Your task to perform on an android device: make emails show in primary in the gmail app Image 0: 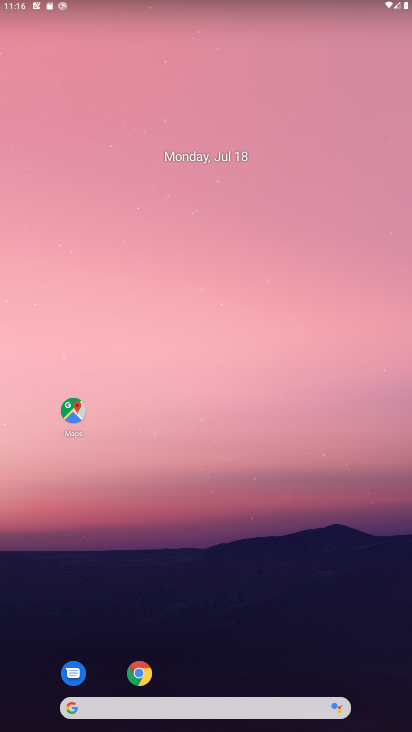
Step 0: drag from (194, 645) to (228, 236)
Your task to perform on an android device: make emails show in primary in the gmail app Image 1: 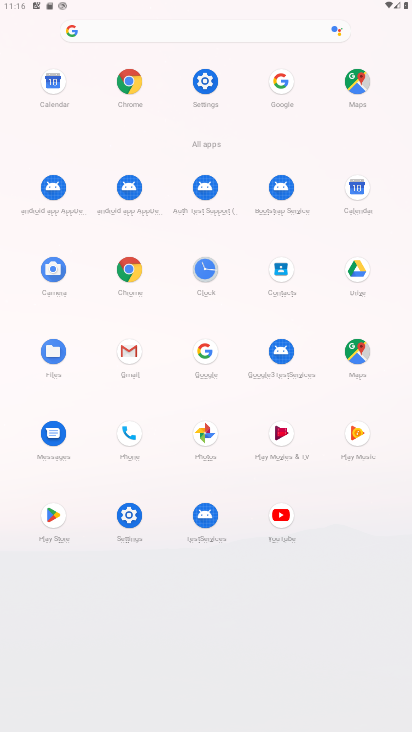
Step 1: click (145, 359)
Your task to perform on an android device: make emails show in primary in the gmail app Image 2: 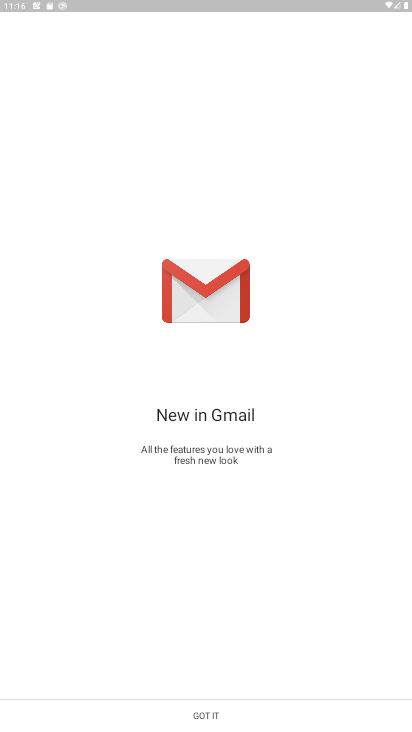
Step 2: click (245, 711)
Your task to perform on an android device: make emails show in primary in the gmail app Image 3: 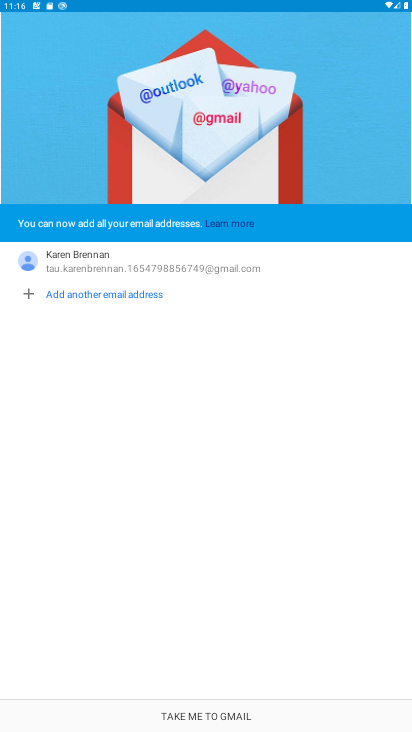
Step 3: click (202, 719)
Your task to perform on an android device: make emails show in primary in the gmail app Image 4: 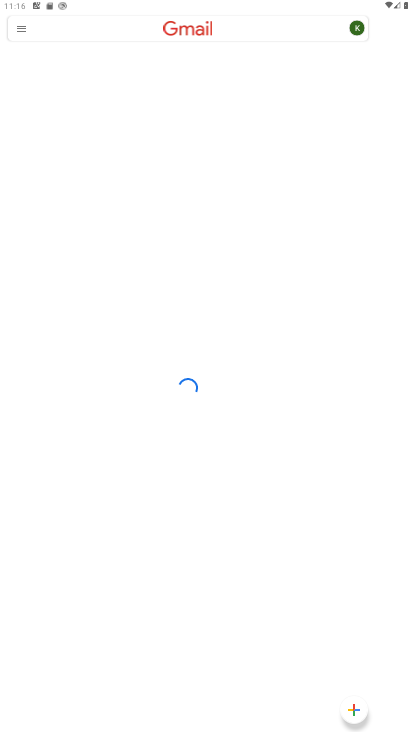
Step 4: click (57, 27)
Your task to perform on an android device: make emails show in primary in the gmail app Image 5: 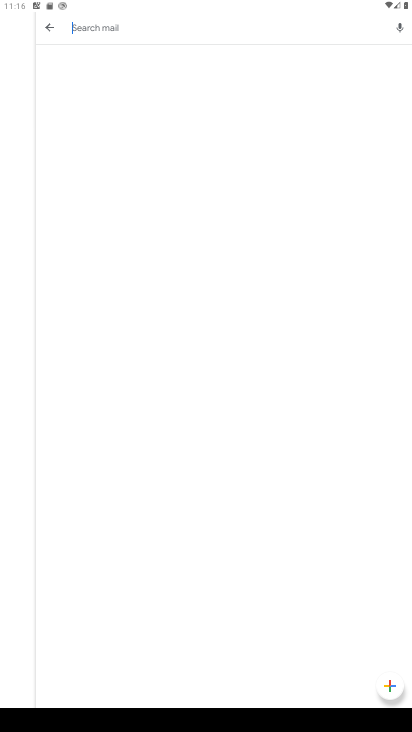
Step 5: click (49, 27)
Your task to perform on an android device: make emails show in primary in the gmail app Image 6: 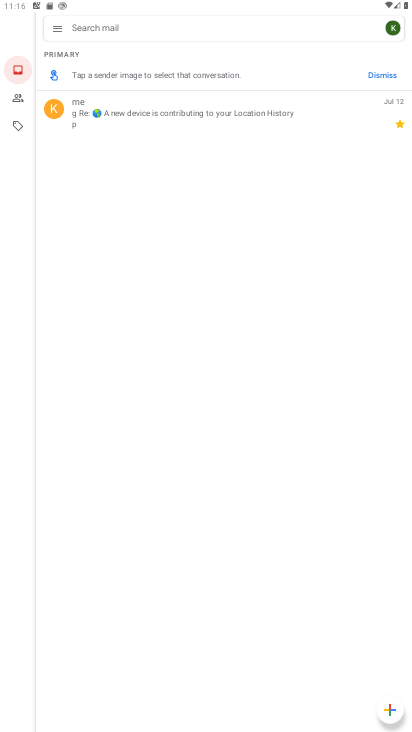
Step 6: click (59, 34)
Your task to perform on an android device: make emails show in primary in the gmail app Image 7: 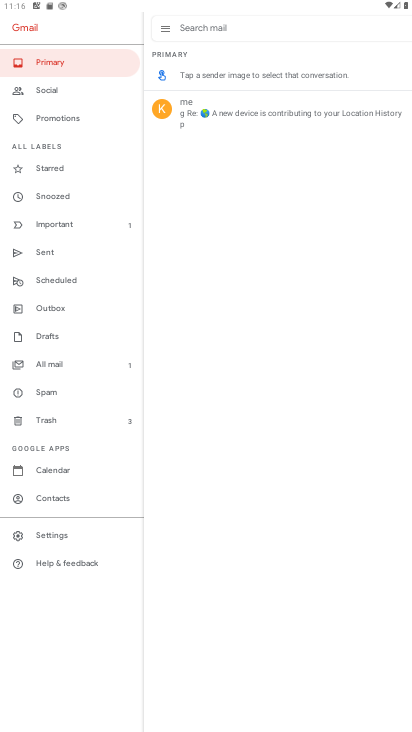
Step 7: click (67, 531)
Your task to perform on an android device: make emails show in primary in the gmail app Image 8: 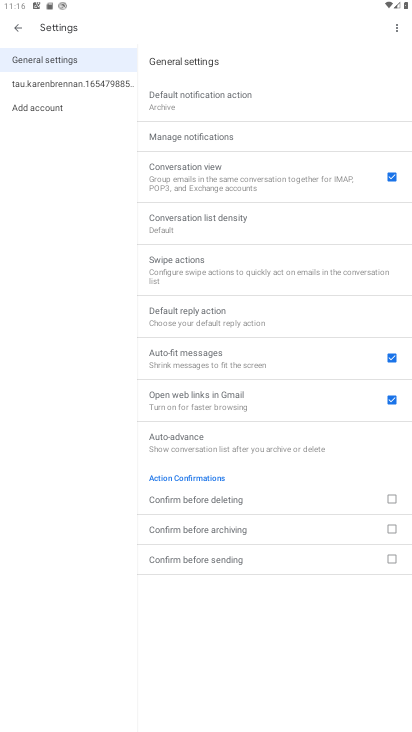
Step 8: drag from (214, 248) to (232, 407)
Your task to perform on an android device: make emails show in primary in the gmail app Image 9: 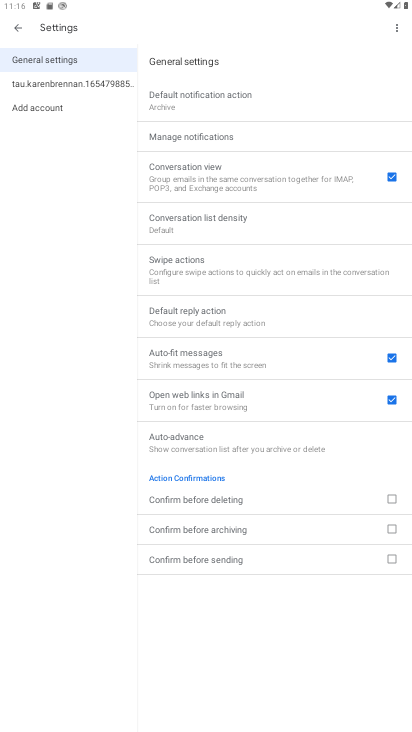
Step 9: click (38, 91)
Your task to perform on an android device: make emails show in primary in the gmail app Image 10: 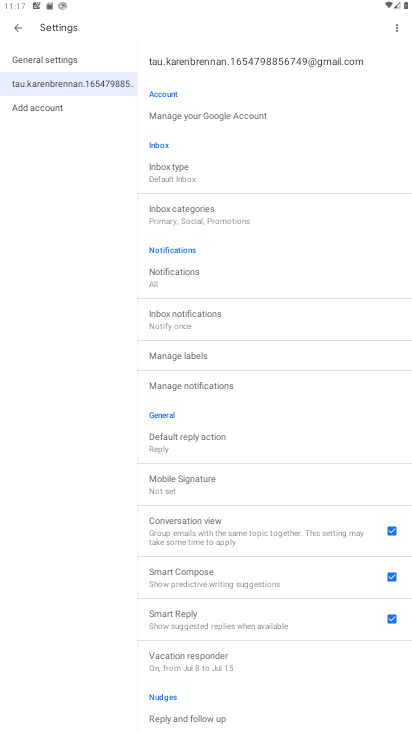
Step 10: click (208, 168)
Your task to perform on an android device: make emails show in primary in the gmail app Image 11: 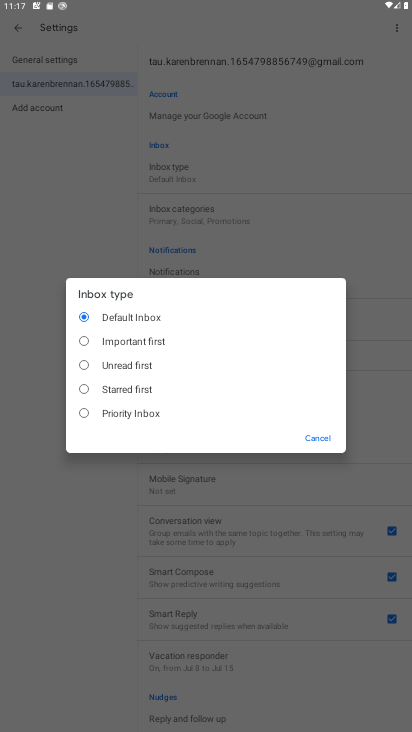
Step 11: task complete